Your task to perform on an android device: set default search engine in the chrome app Image 0: 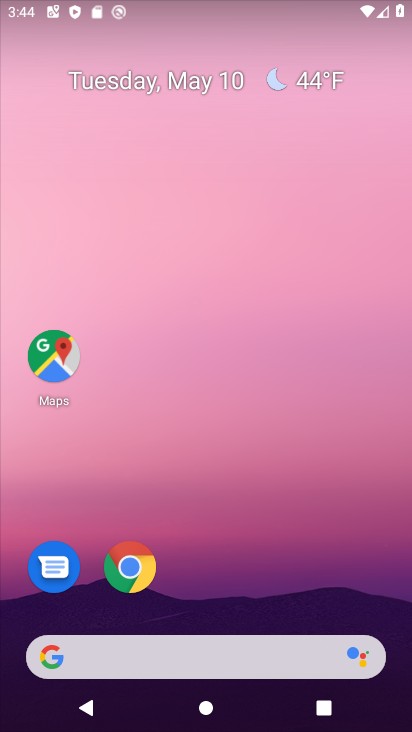
Step 0: click (131, 567)
Your task to perform on an android device: set default search engine in the chrome app Image 1: 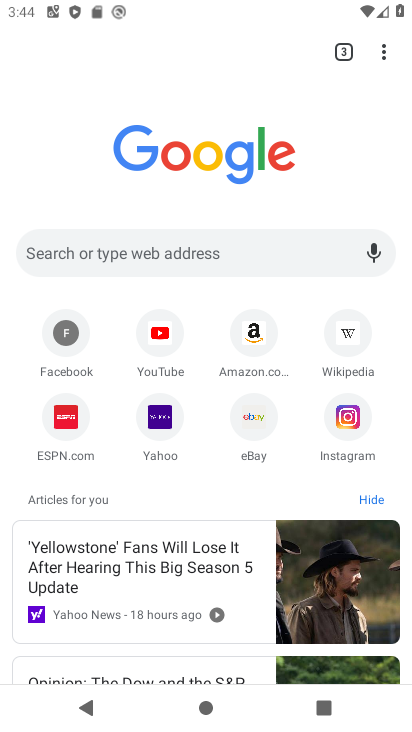
Step 1: click (384, 50)
Your task to perform on an android device: set default search engine in the chrome app Image 2: 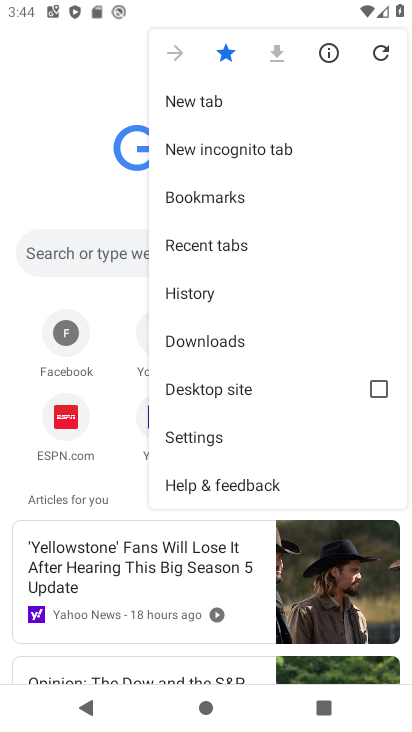
Step 2: click (186, 434)
Your task to perform on an android device: set default search engine in the chrome app Image 3: 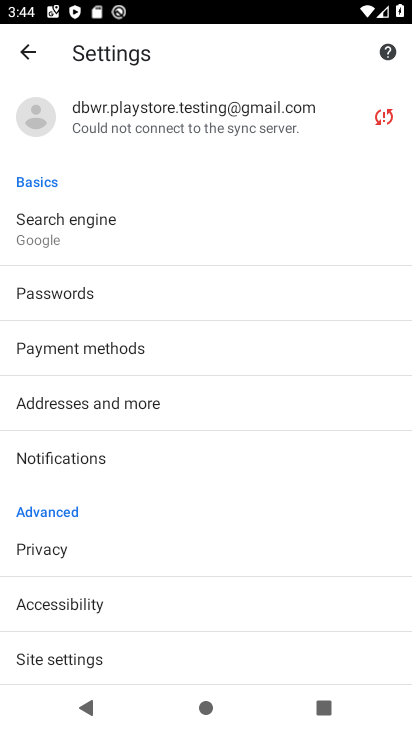
Step 3: click (46, 216)
Your task to perform on an android device: set default search engine in the chrome app Image 4: 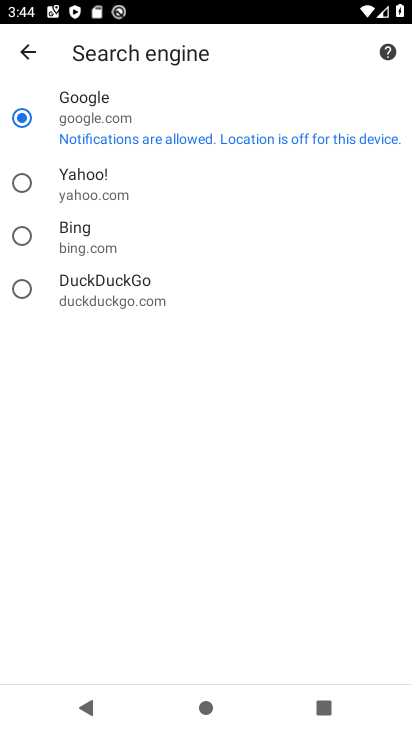
Step 4: click (16, 157)
Your task to perform on an android device: set default search engine in the chrome app Image 5: 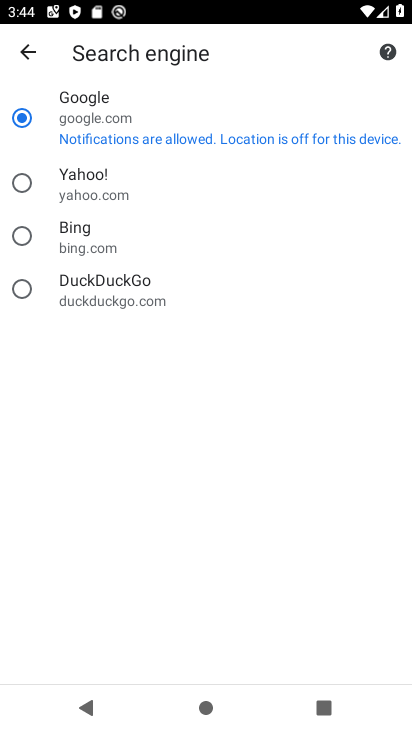
Step 5: click (18, 170)
Your task to perform on an android device: set default search engine in the chrome app Image 6: 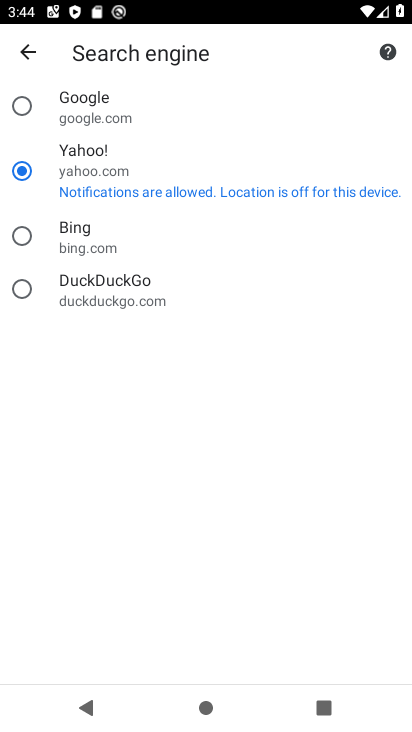
Step 6: task complete